Your task to perform on an android device: Show me the alarms in the clock app Image 0: 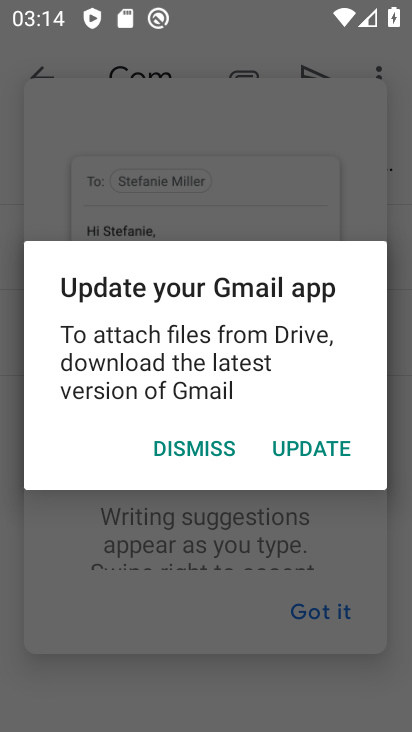
Step 0: press home button
Your task to perform on an android device: Show me the alarms in the clock app Image 1: 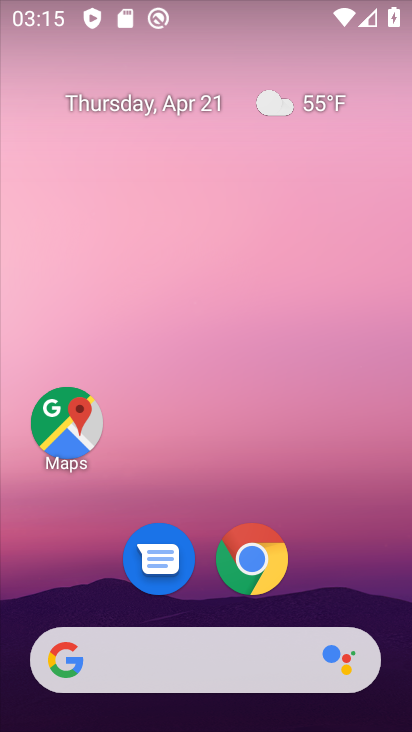
Step 1: drag from (330, 598) to (262, 68)
Your task to perform on an android device: Show me the alarms in the clock app Image 2: 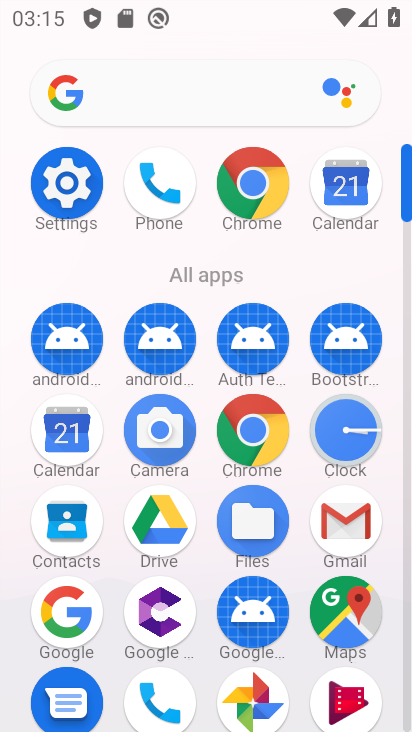
Step 2: click (330, 431)
Your task to perform on an android device: Show me the alarms in the clock app Image 3: 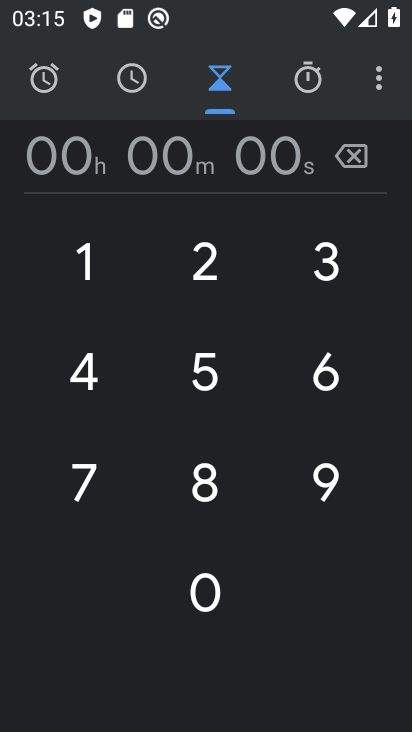
Step 3: click (52, 98)
Your task to perform on an android device: Show me the alarms in the clock app Image 4: 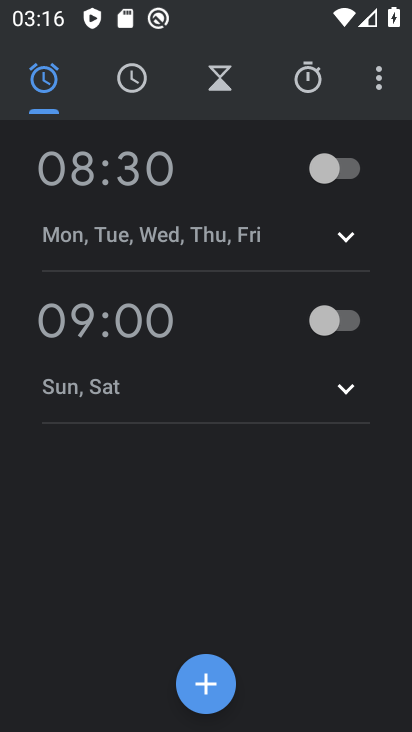
Step 4: task complete